Your task to perform on an android device: Open notification settings Image 0: 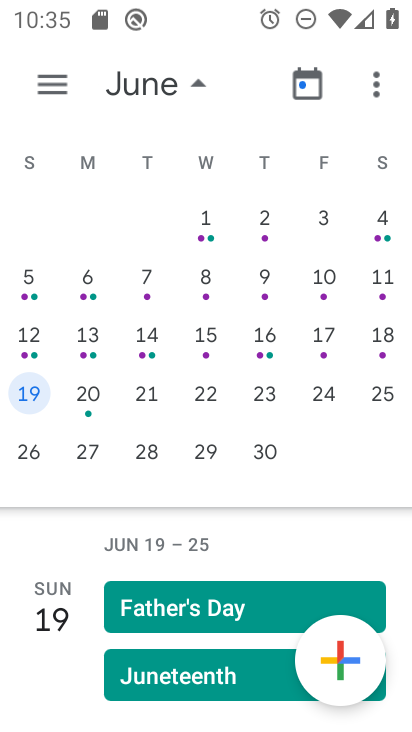
Step 0: press home button
Your task to perform on an android device: Open notification settings Image 1: 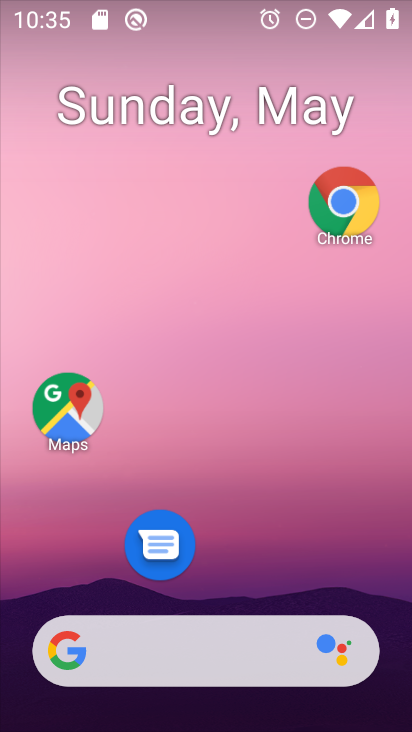
Step 1: drag from (237, 550) to (184, 35)
Your task to perform on an android device: Open notification settings Image 2: 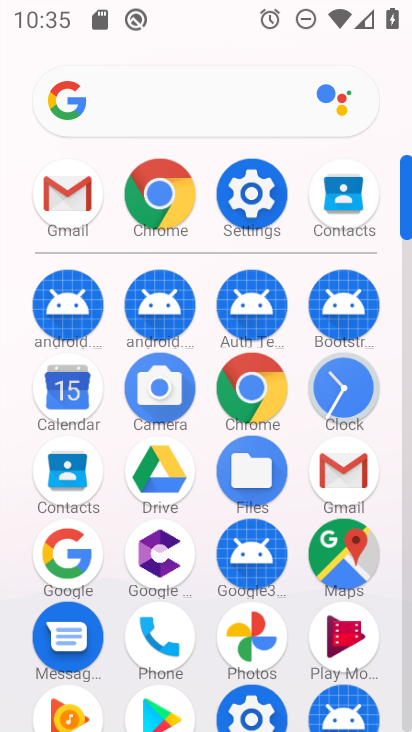
Step 2: click (251, 197)
Your task to perform on an android device: Open notification settings Image 3: 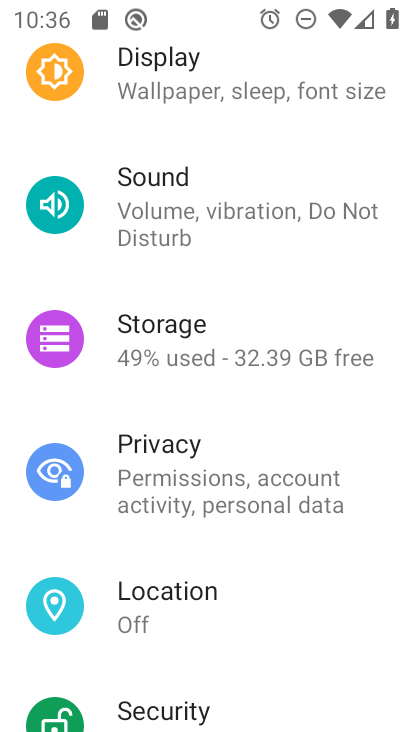
Step 3: drag from (231, 248) to (216, 388)
Your task to perform on an android device: Open notification settings Image 4: 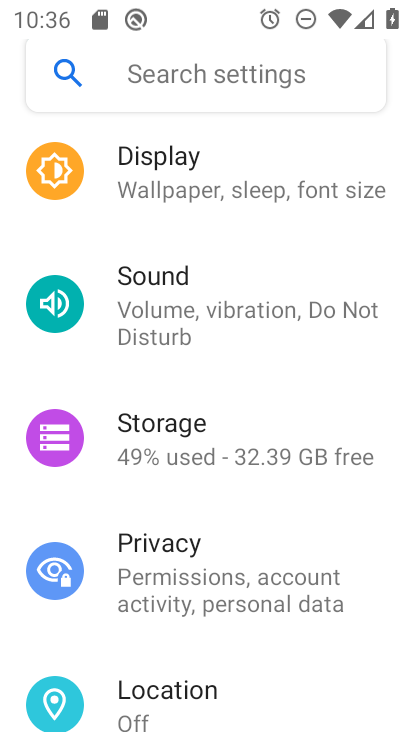
Step 4: drag from (210, 282) to (197, 459)
Your task to perform on an android device: Open notification settings Image 5: 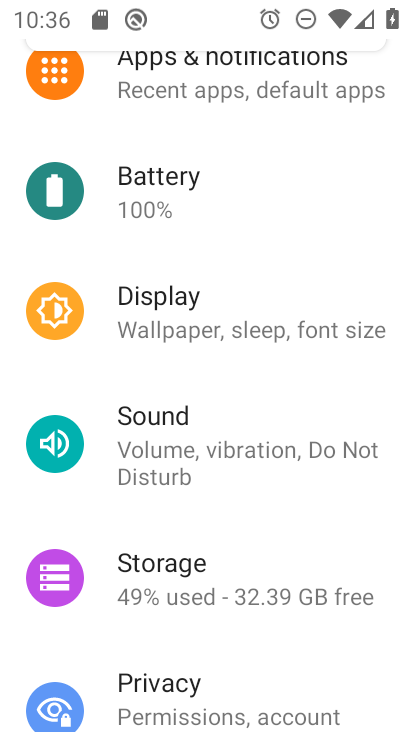
Step 5: click (217, 106)
Your task to perform on an android device: Open notification settings Image 6: 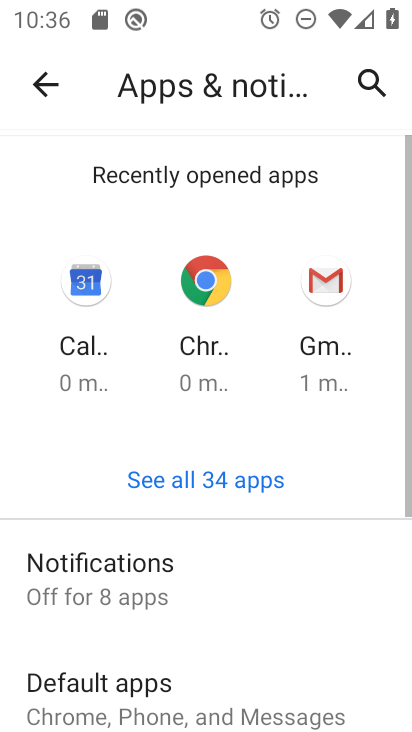
Step 6: click (132, 572)
Your task to perform on an android device: Open notification settings Image 7: 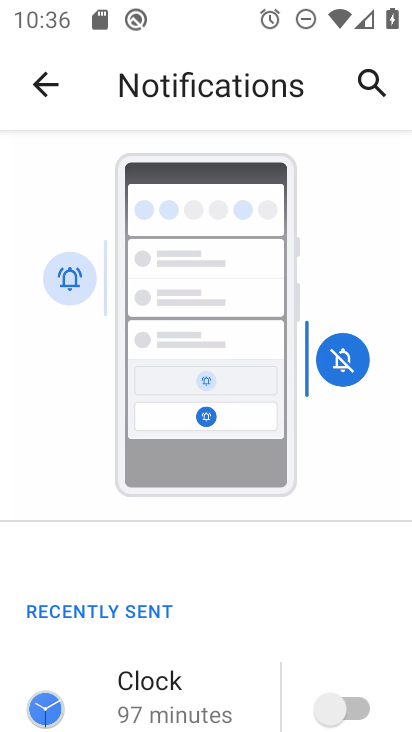
Step 7: task complete